Your task to perform on an android device: Open eBay Image 0: 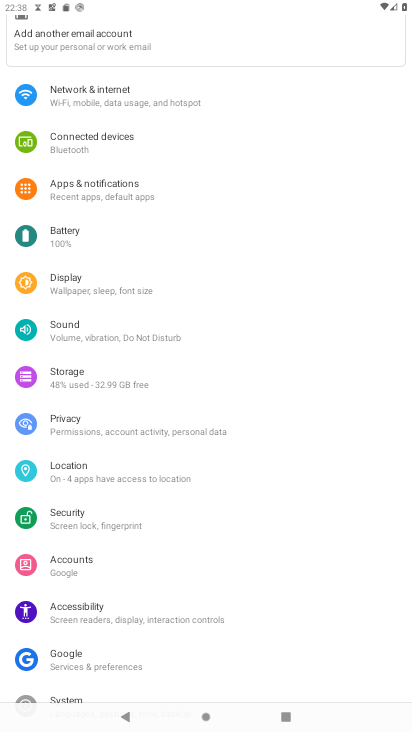
Step 0: press home button
Your task to perform on an android device: Open eBay Image 1: 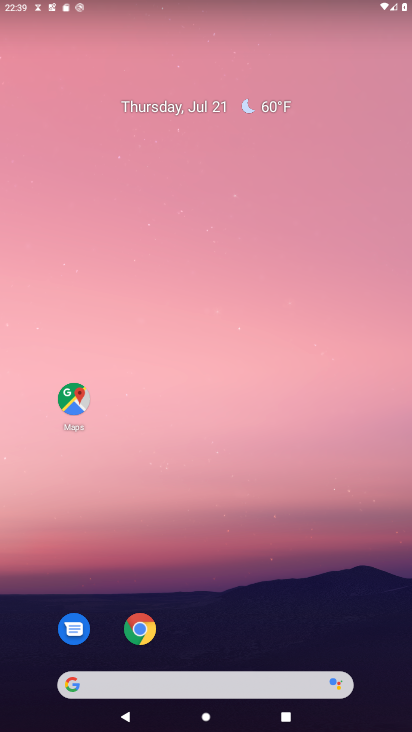
Step 1: drag from (242, 661) to (233, 283)
Your task to perform on an android device: Open eBay Image 2: 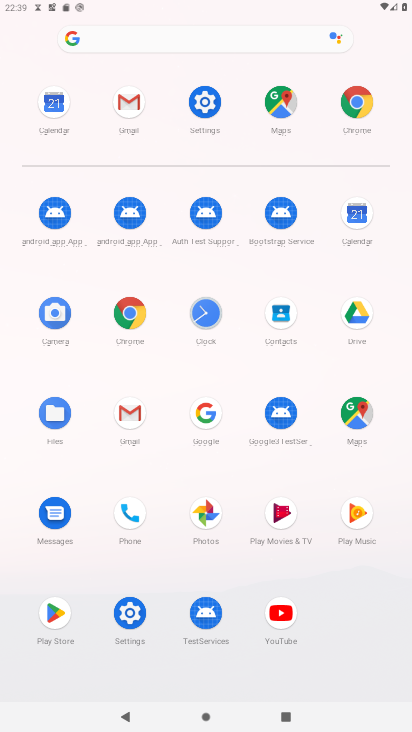
Step 2: click (355, 101)
Your task to perform on an android device: Open eBay Image 3: 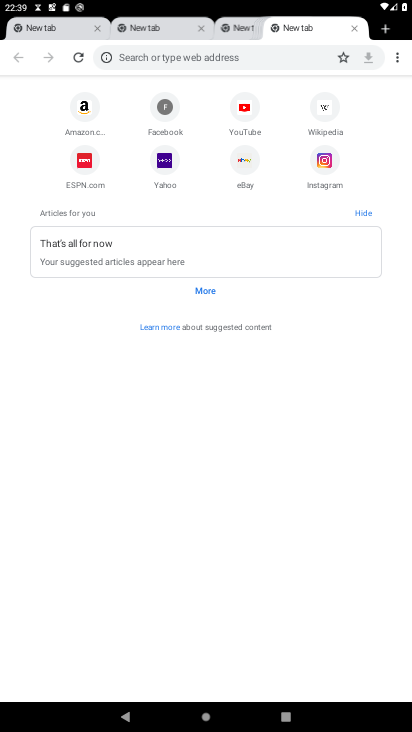
Step 3: click (248, 165)
Your task to perform on an android device: Open eBay Image 4: 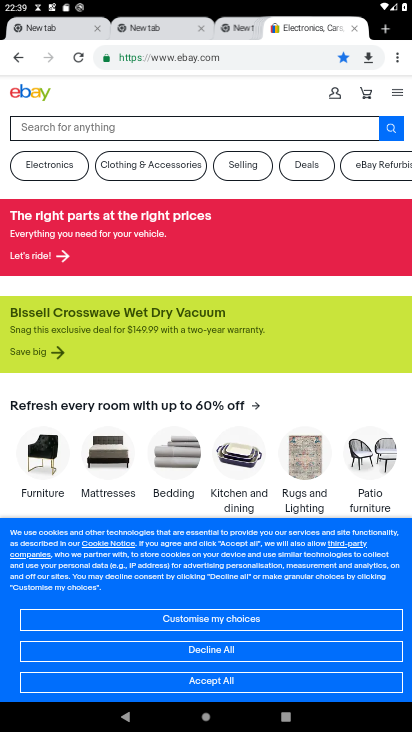
Step 4: task complete